Your task to perform on an android device: turn off wifi Image 0: 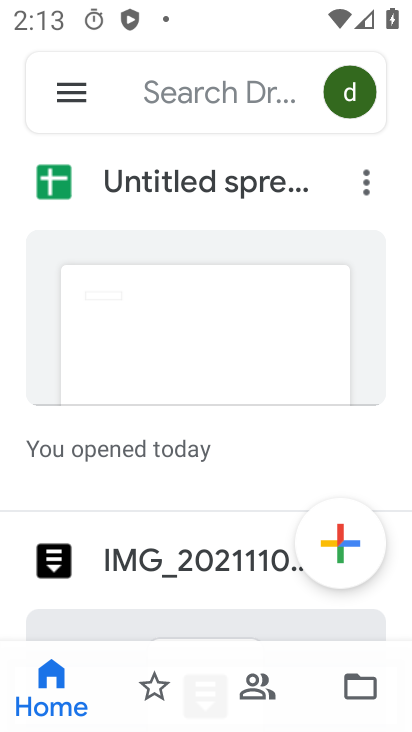
Step 0: press home button
Your task to perform on an android device: turn off wifi Image 1: 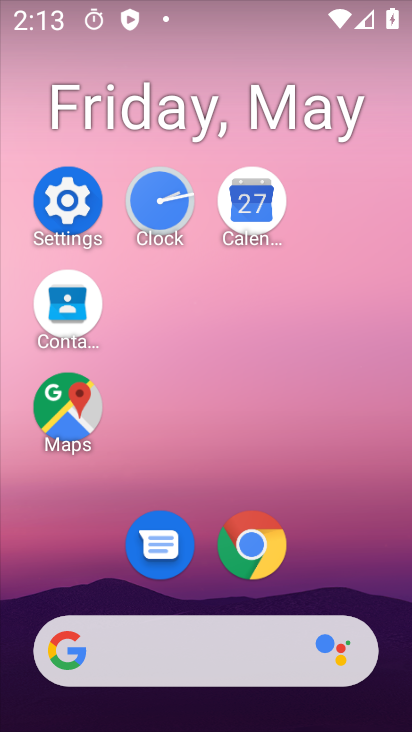
Step 1: click (90, 203)
Your task to perform on an android device: turn off wifi Image 2: 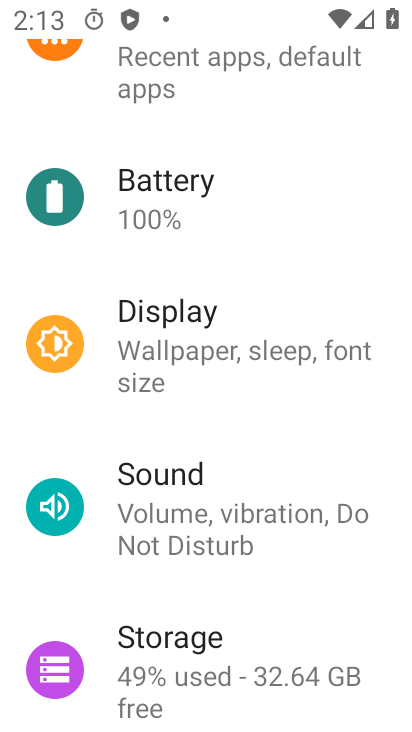
Step 2: drag from (279, 237) to (296, 694)
Your task to perform on an android device: turn off wifi Image 3: 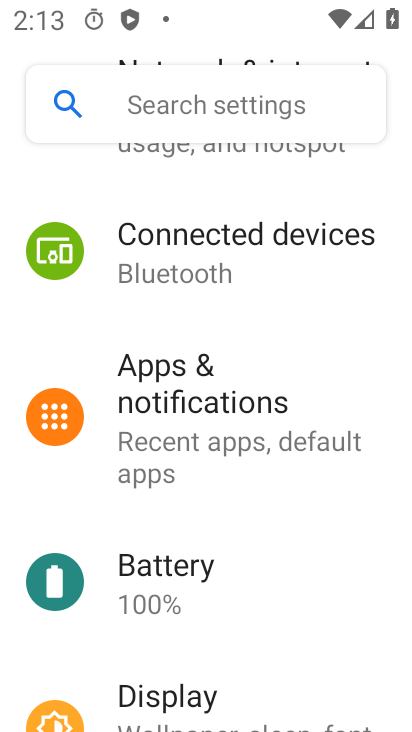
Step 3: drag from (328, 172) to (334, 515)
Your task to perform on an android device: turn off wifi Image 4: 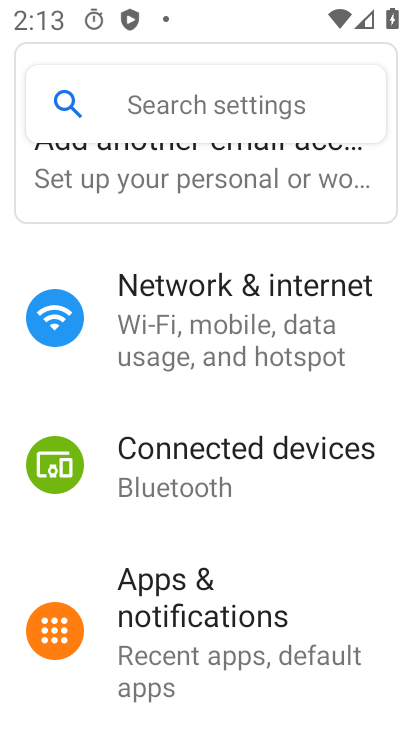
Step 4: click (313, 306)
Your task to perform on an android device: turn off wifi Image 5: 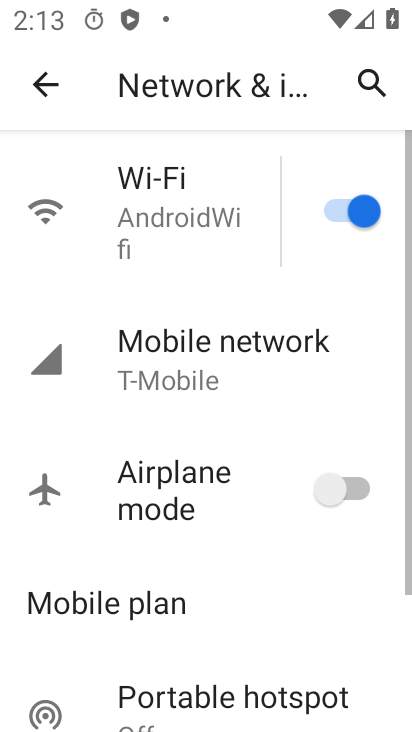
Step 5: click (178, 257)
Your task to perform on an android device: turn off wifi Image 6: 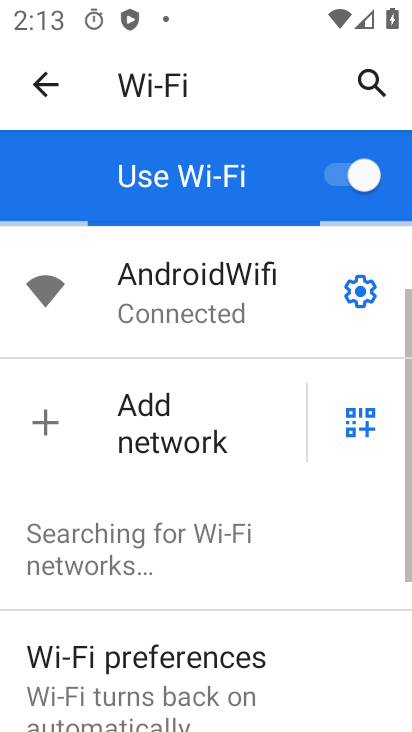
Step 6: click (344, 203)
Your task to perform on an android device: turn off wifi Image 7: 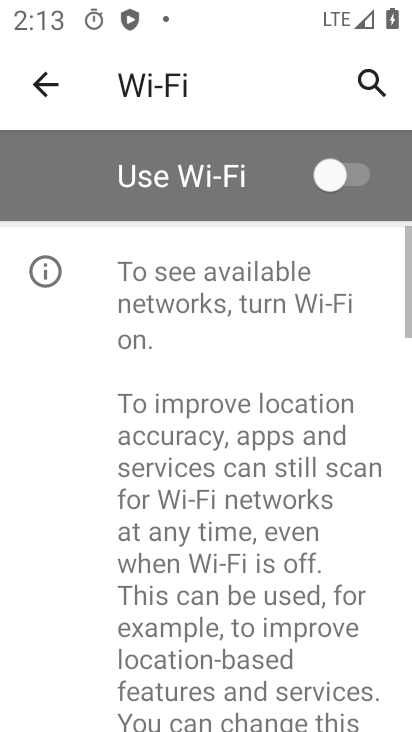
Step 7: task complete